Your task to perform on an android device: Show me recent news Image 0: 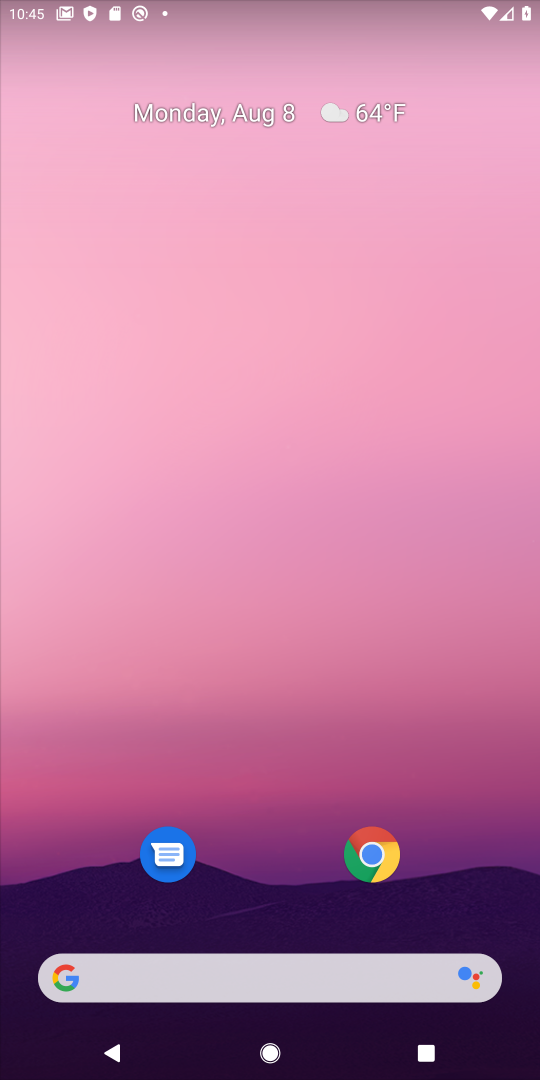
Step 0: click (398, 1015)
Your task to perform on an android device: Show me recent news Image 1: 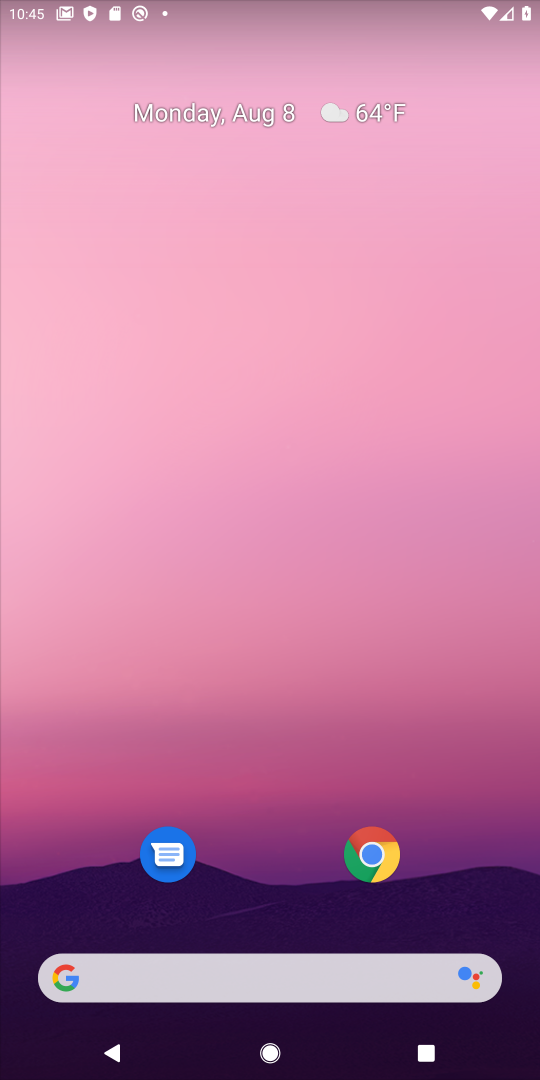
Step 1: drag from (299, 17) to (520, 817)
Your task to perform on an android device: Show me recent news Image 2: 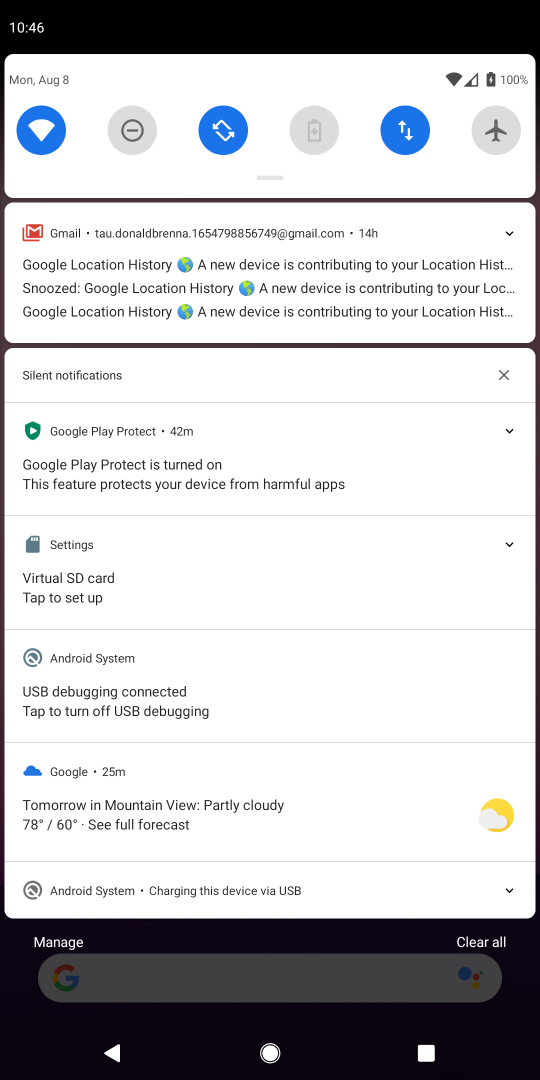
Step 2: click (471, 946)
Your task to perform on an android device: Show me recent news Image 3: 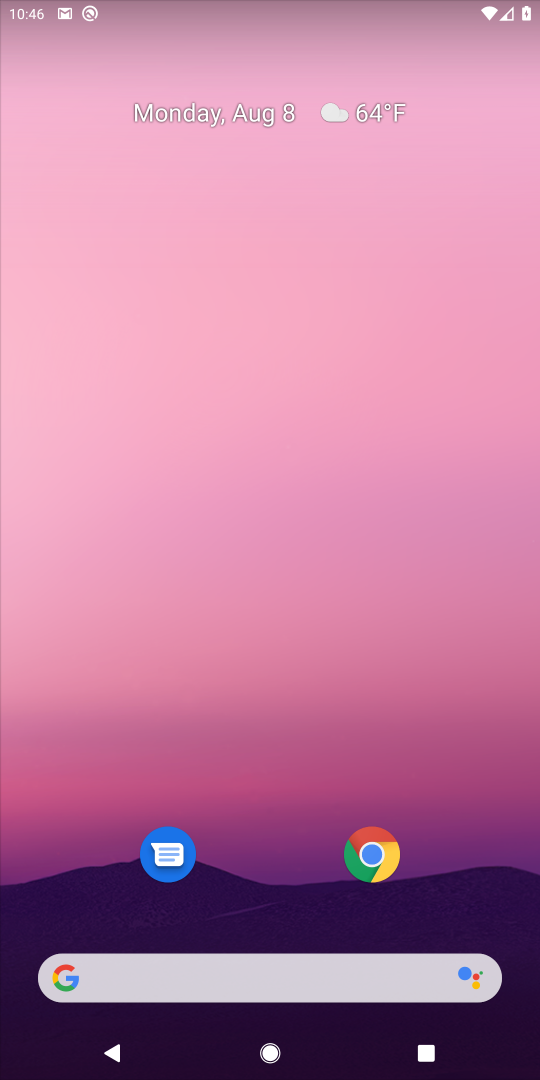
Step 3: click (230, 974)
Your task to perform on an android device: Show me recent news Image 4: 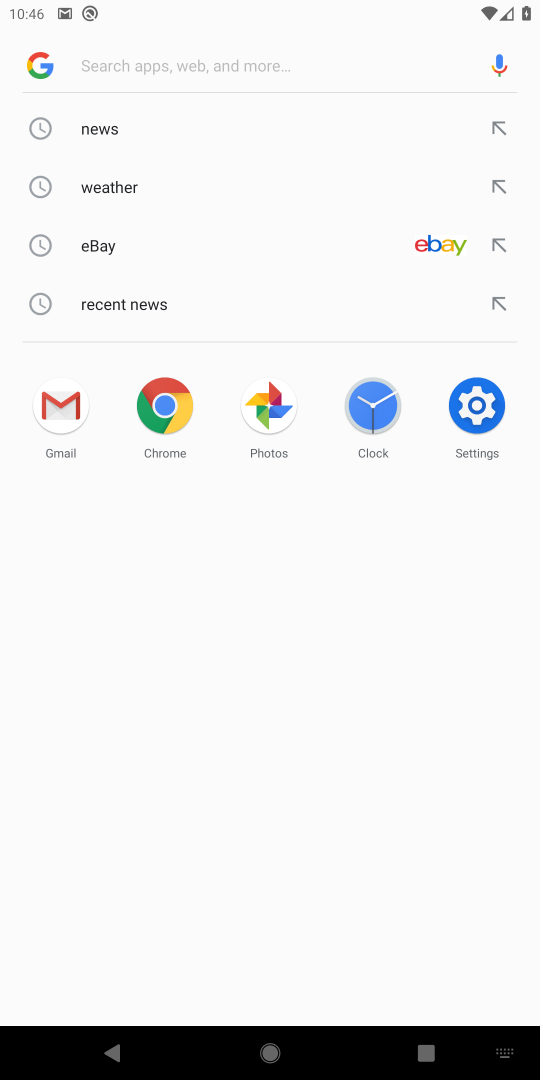
Step 4: click (183, 115)
Your task to perform on an android device: Show me recent news Image 5: 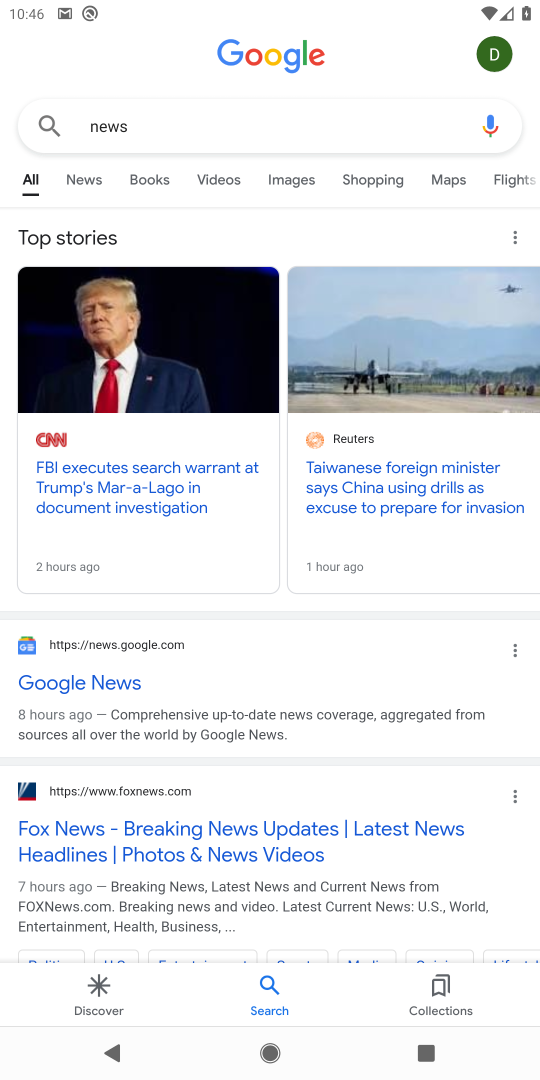
Step 5: task complete